Your task to perform on an android device: find snoozed emails in the gmail app Image 0: 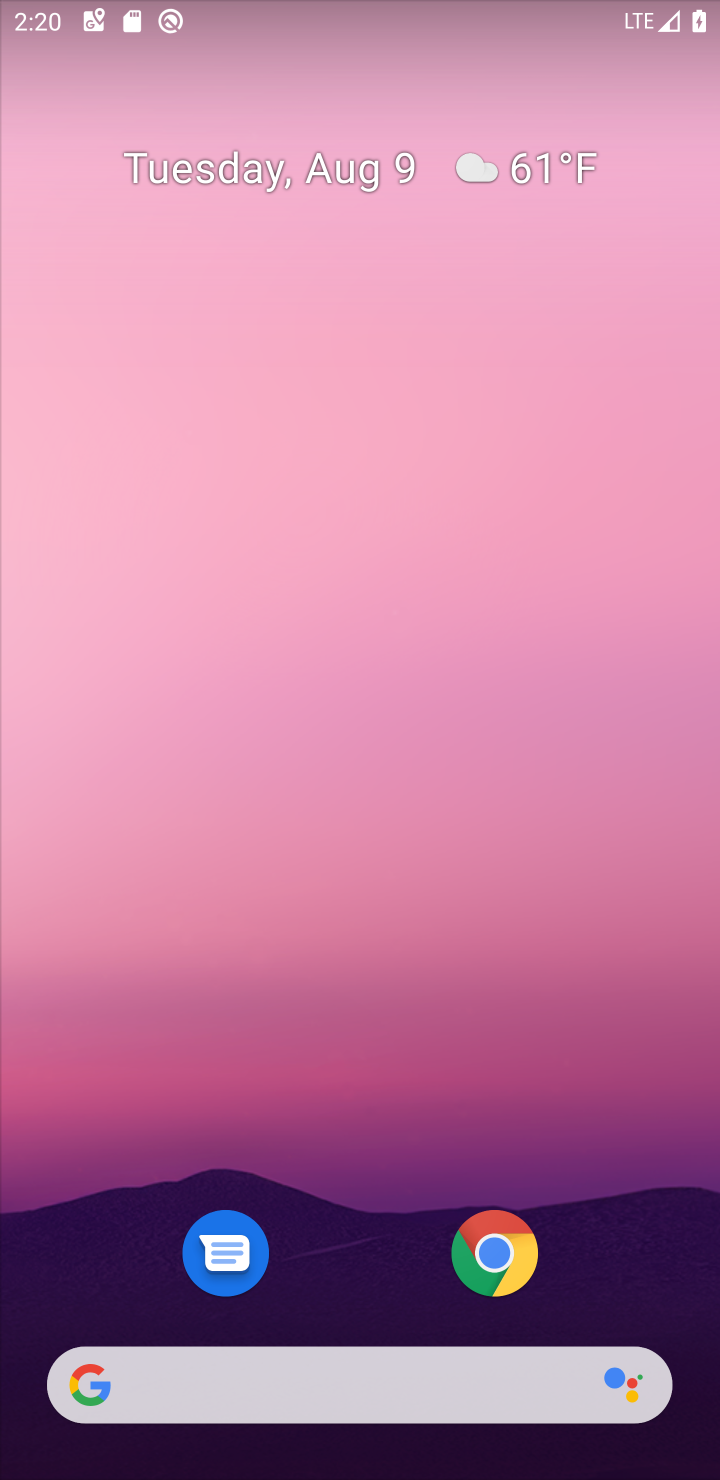
Step 0: drag from (684, 1266) to (222, 5)
Your task to perform on an android device: find snoozed emails in the gmail app Image 1: 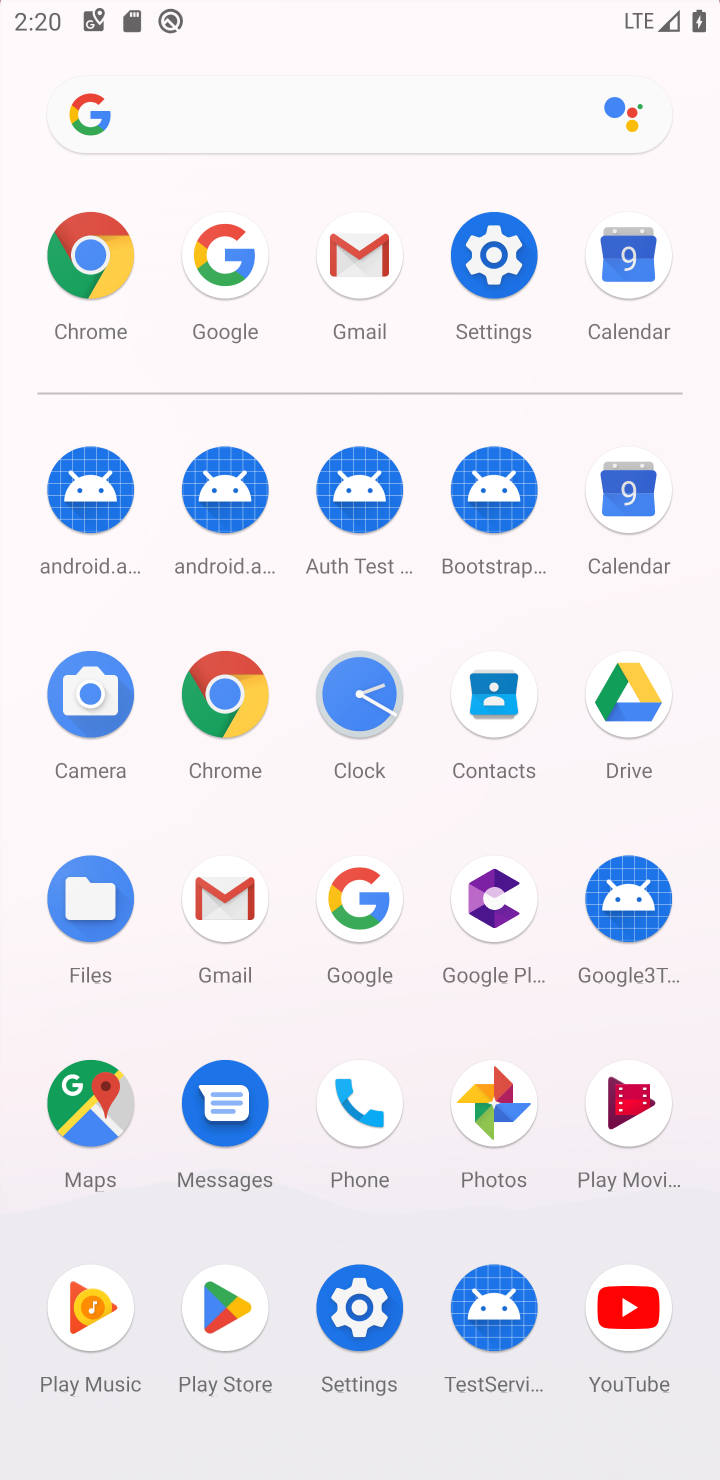
Step 1: click (220, 953)
Your task to perform on an android device: find snoozed emails in the gmail app Image 2: 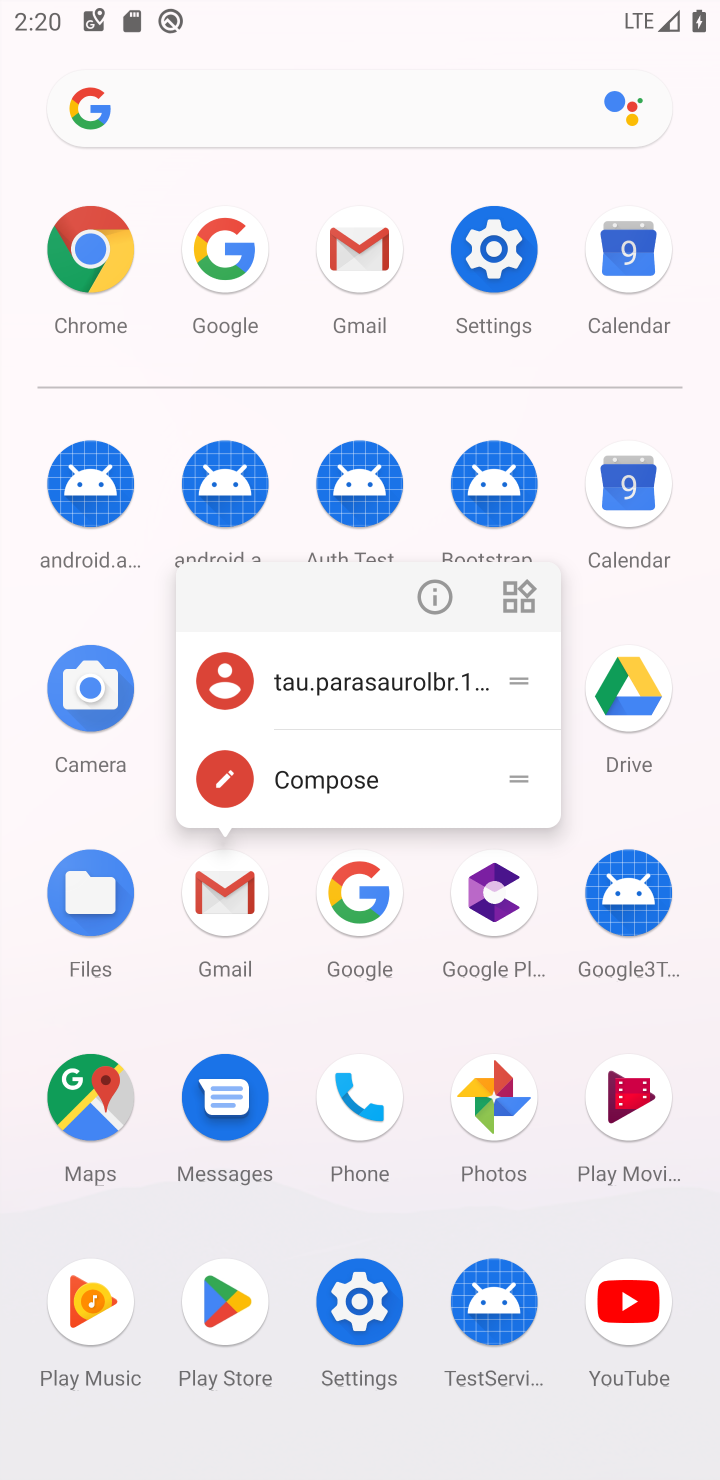
Step 2: click (228, 925)
Your task to perform on an android device: find snoozed emails in the gmail app Image 3: 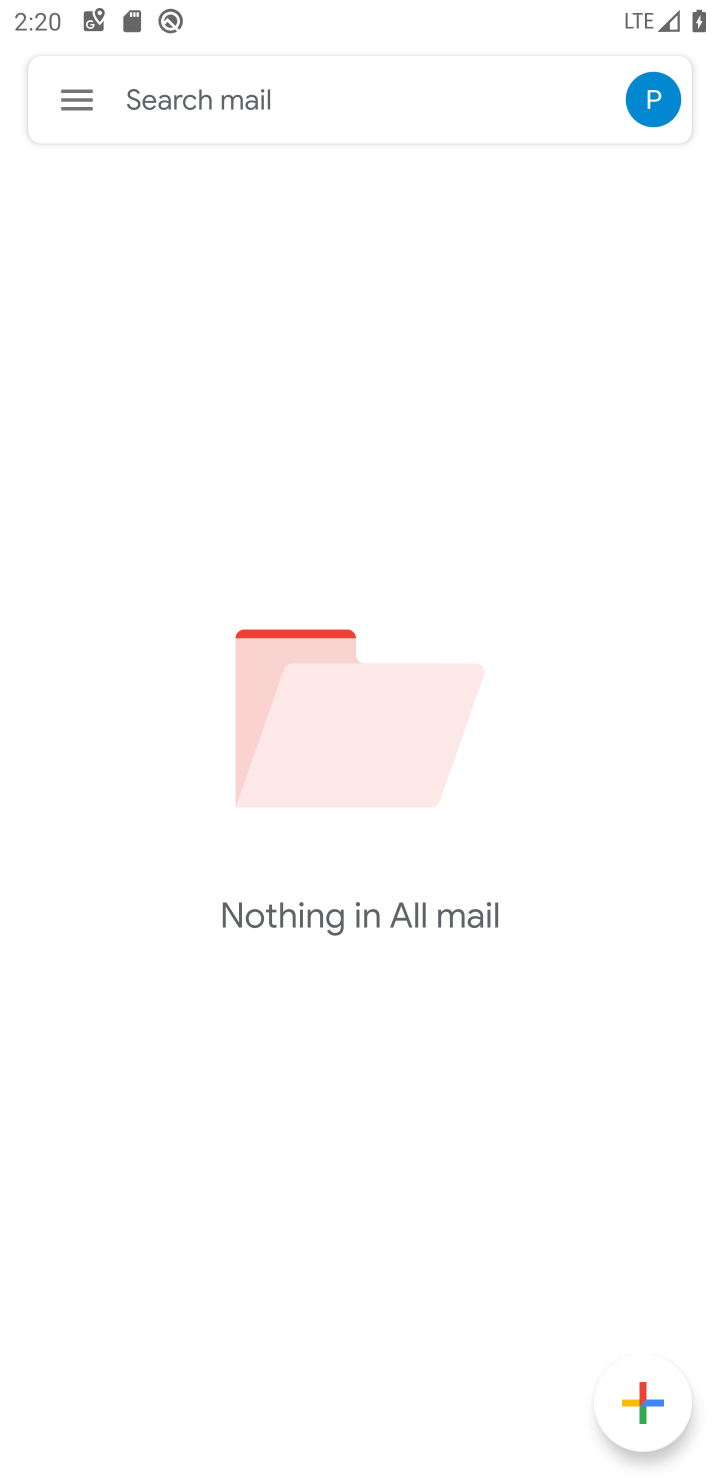
Step 3: click (47, 80)
Your task to perform on an android device: find snoozed emails in the gmail app Image 4: 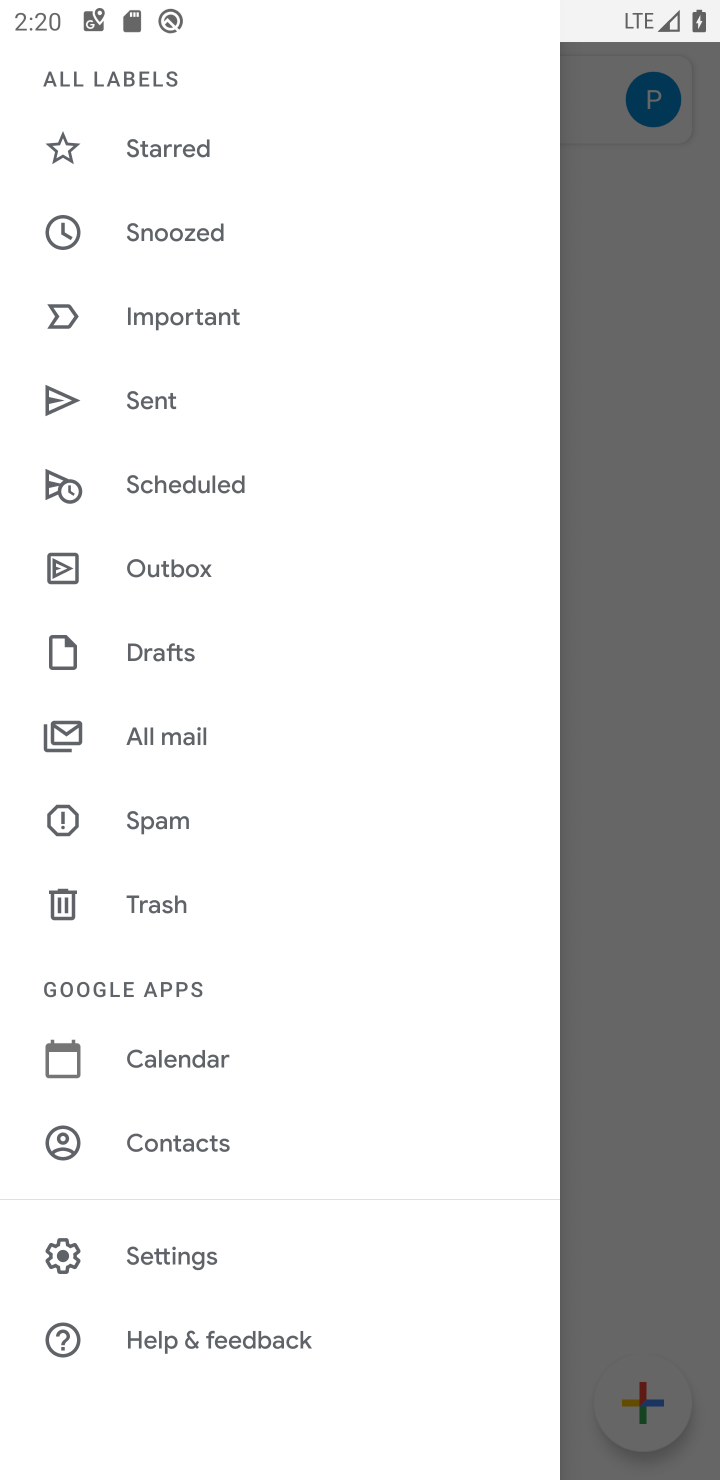
Step 4: click (199, 247)
Your task to perform on an android device: find snoozed emails in the gmail app Image 5: 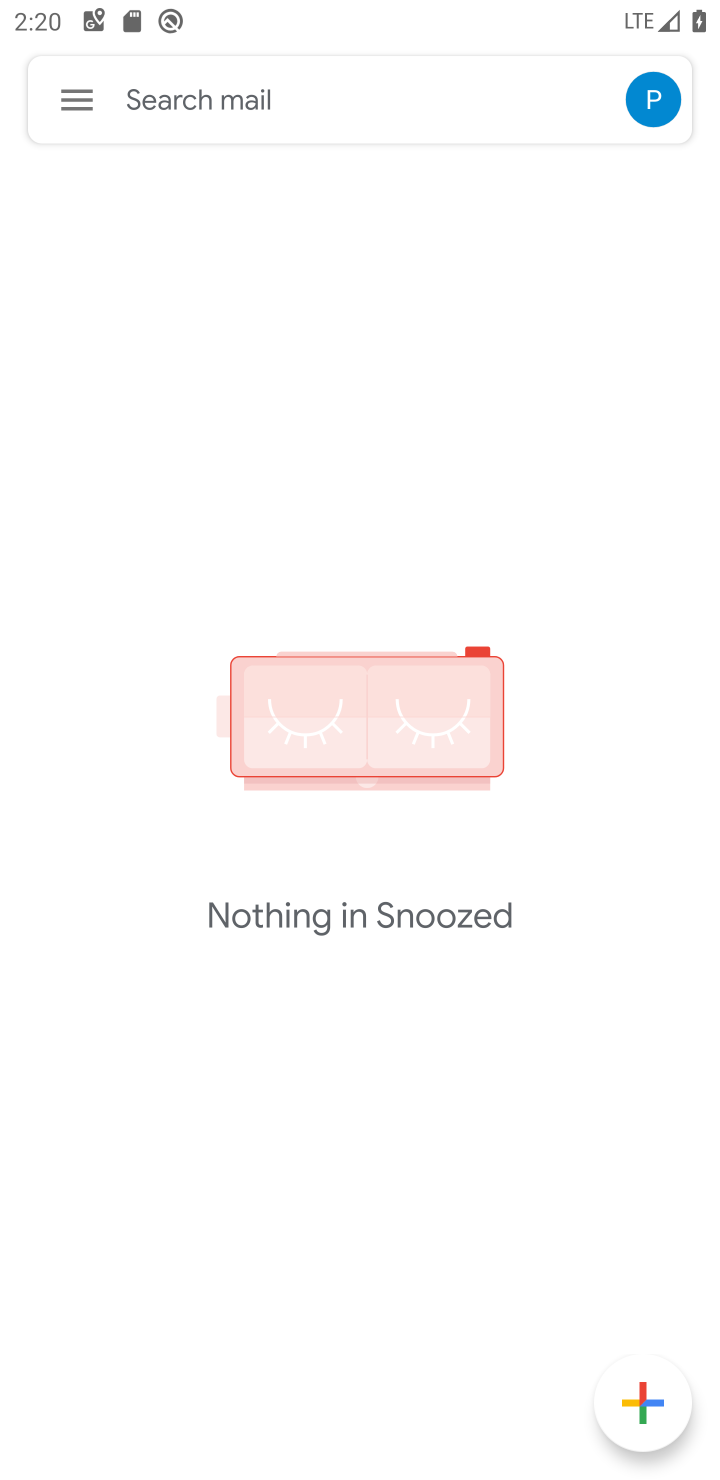
Step 5: task complete